Your task to perform on an android device: open sync settings in chrome Image 0: 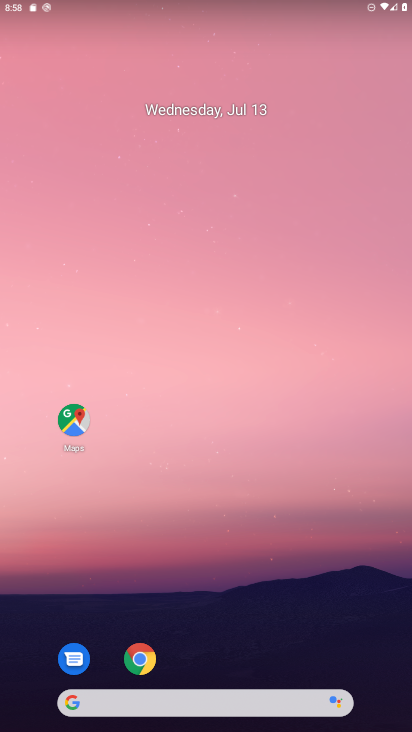
Step 0: click (143, 656)
Your task to perform on an android device: open sync settings in chrome Image 1: 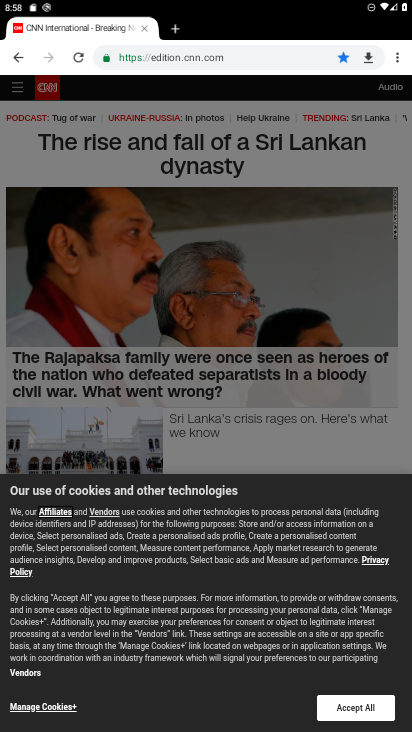
Step 1: click (396, 58)
Your task to perform on an android device: open sync settings in chrome Image 2: 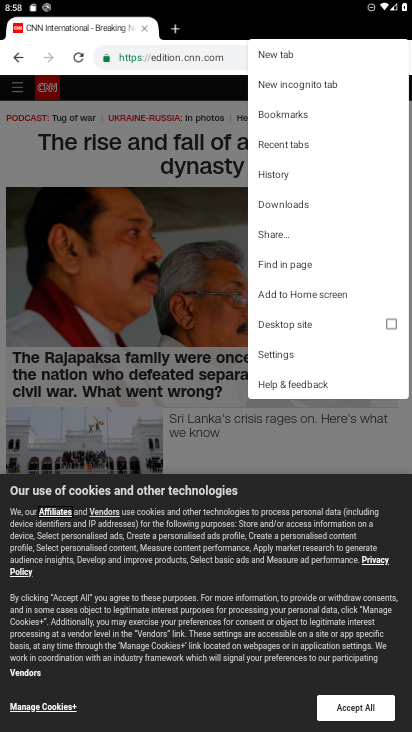
Step 2: click (284, 352)
Your task to perform on an android device: open sync settings in chrome Image 3: 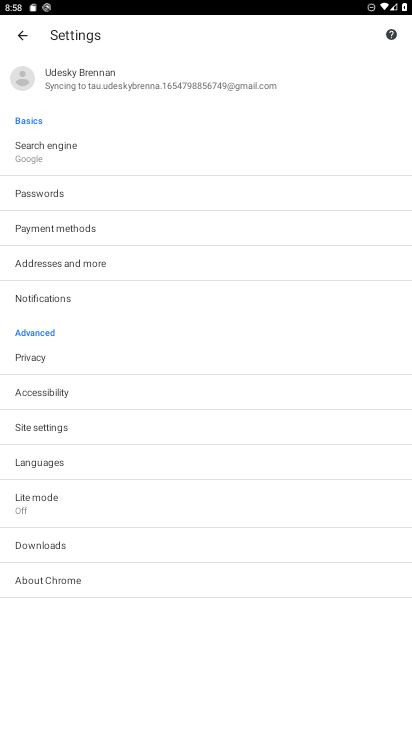
Step 3: click (46, 423)
Your task to perform on an android device: open sync settings in chrome Image 4: 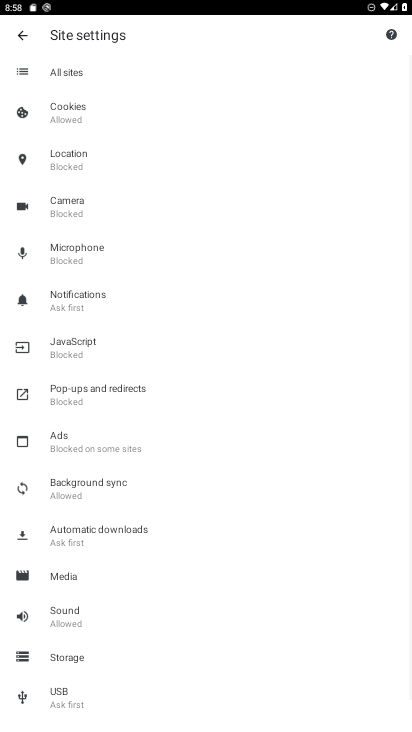
Step 4: click (92, 480)
Your task to perform on an android device: open sync settings in chrome Image 5: 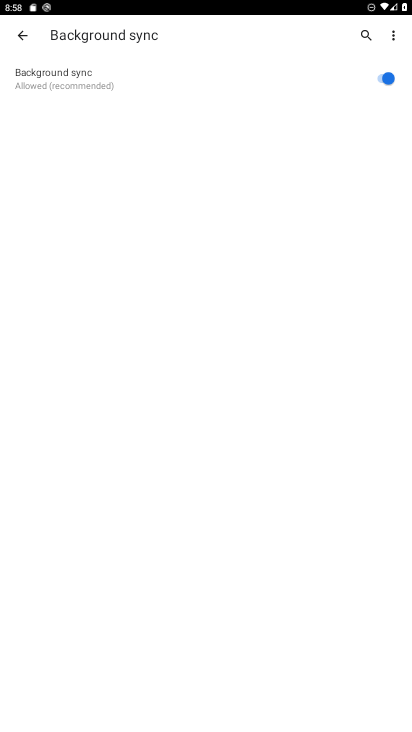
Step 5: task complete